Your task to perform on an android device: turn notification dots off Image 0: 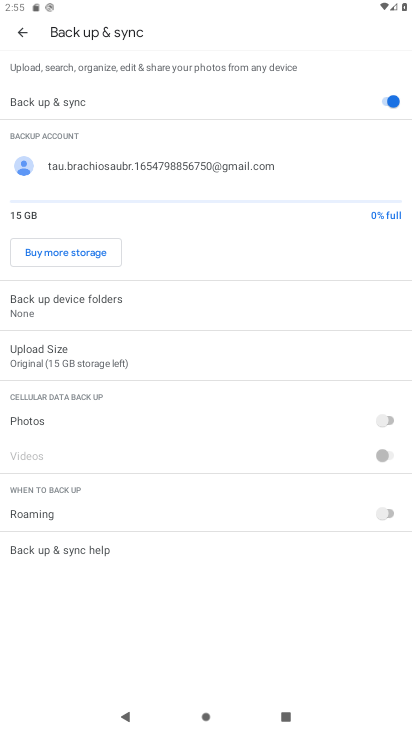
Step 0: press home button
Your task to perform on an android device: turn notification dots off Image 1: 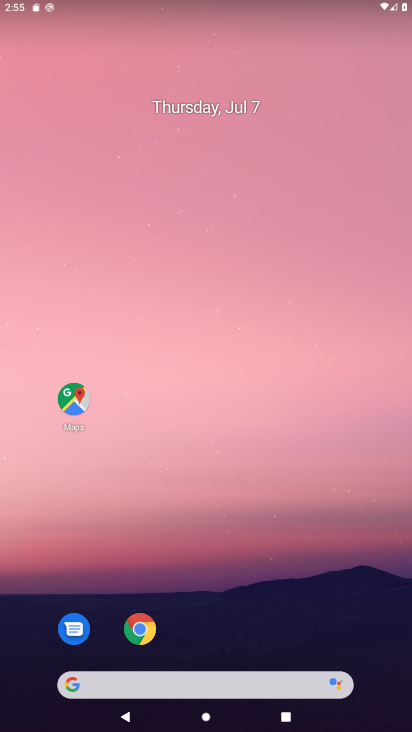
Step 1: drag from (379, 486) to (248, 22)
Your task to perform on an android device: turn notification dots off Image 2: 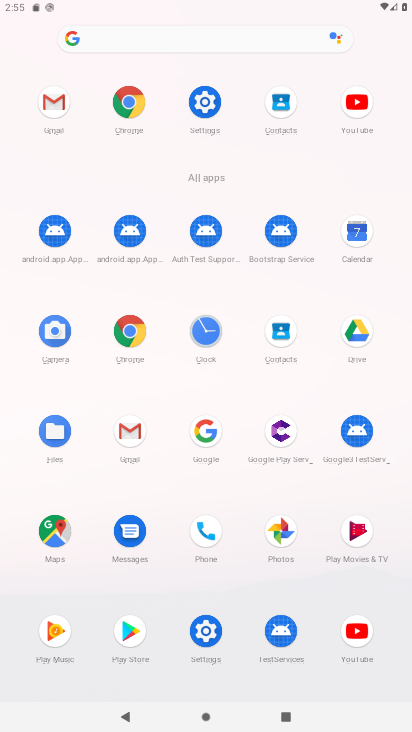
Step 2: click (202, 93)
Your task to perform on an android device: turn notification dots off Image 3: 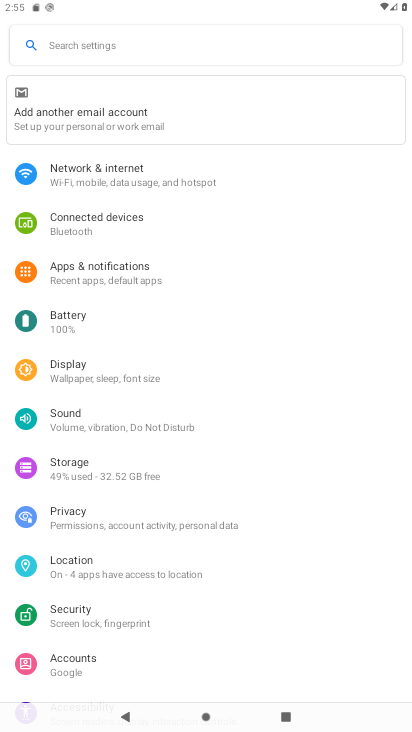
Step 3: click (136, 263)
Your task to perform on an android device: turn notification dots off Image 4: 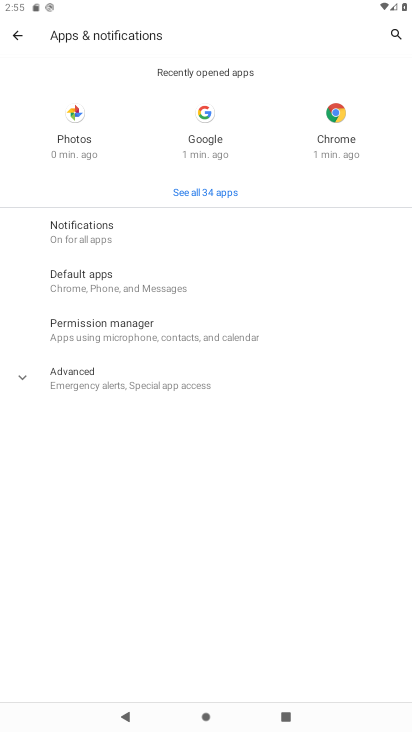
Step 4: click (130, 228)
Your task to perform on an android device: turn notification dots off Image 5: 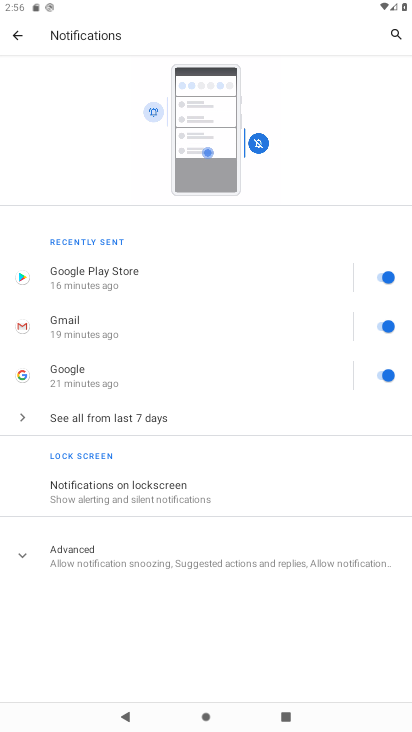
Step 5: click (171, 548)
Your task to perform on an android device: turn notification dots off Image 6: 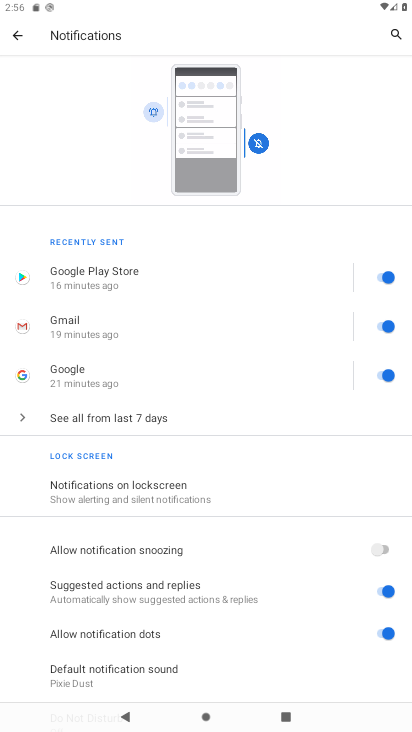
Step 6: click (217, 634)
Your task to perform on an android device: turn notification dots off Image 7: 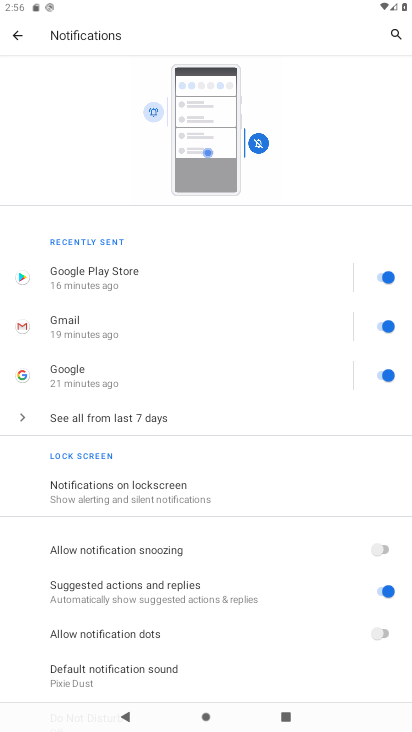
Step 7: task complete